Your task to perform on an android device: Go to Reddit.com Image 0: 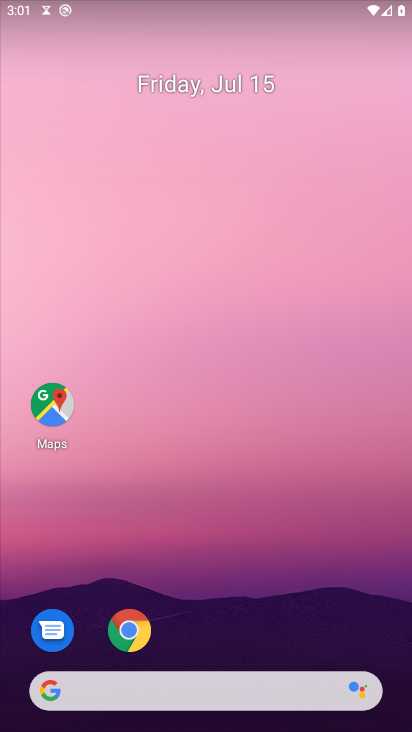
Step 0: press home button
Your task to perform on an android device: Go to Reddit.com Image 1: 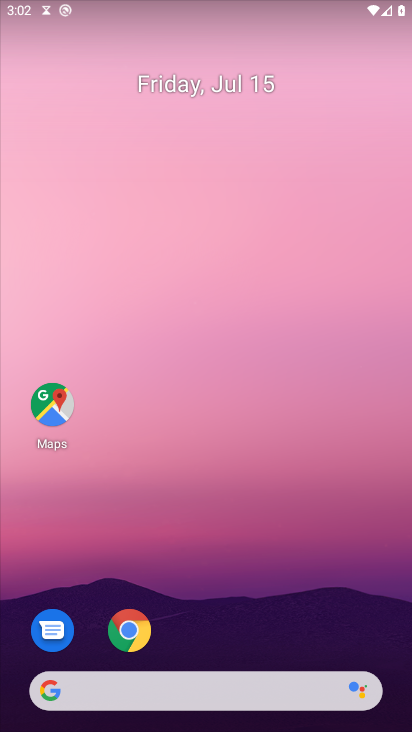
Step 1: click (52, 694)
Your task to perform on an android device: Go to Reddit.com Image 2: 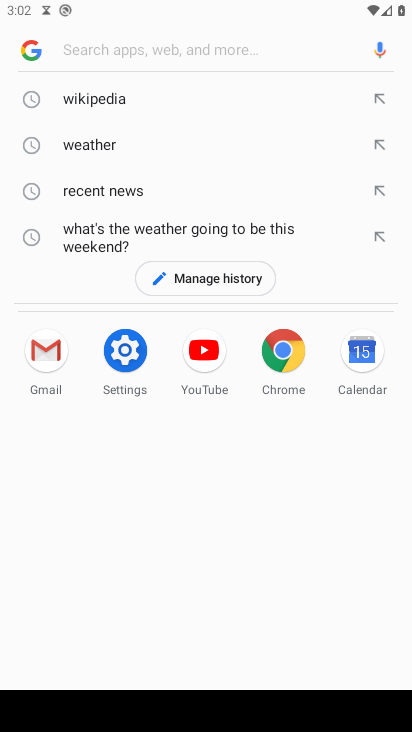
Step 2: type " Reddit.com"
Your task to perform on an android device: Go to Reddit.com Image 3: 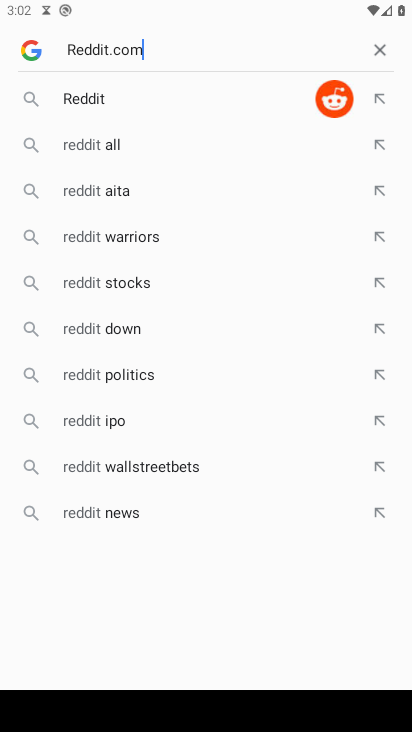
Step 3: press enter
Your task to perform on an android device: Go to Reddit.com Image 4: 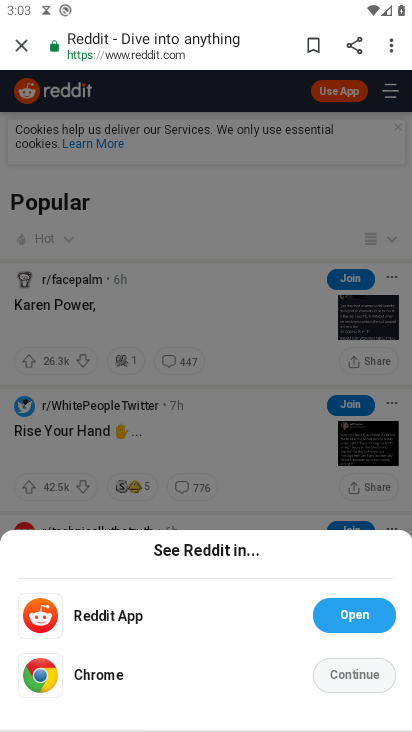
Step 4: task complete